Your task to perform on an android device: Check the news Image 0: 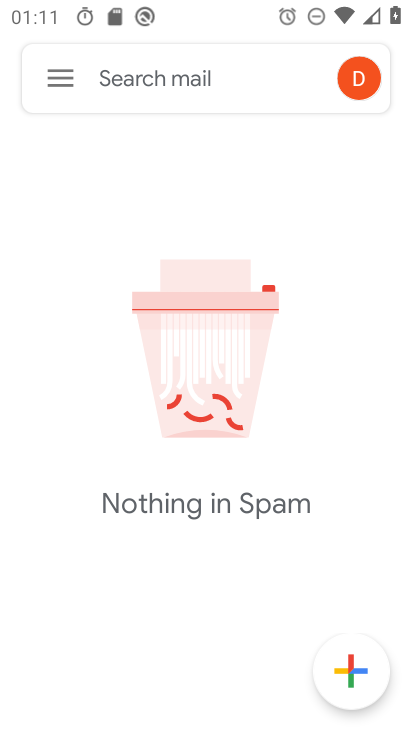
Step 0: press home button
Your task to perform on an android device: Check the news Image 1: 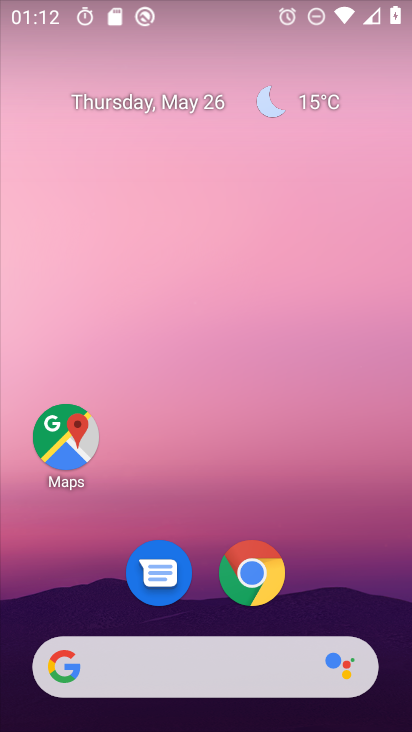
Step 1: click (120, 659)
Your task to perform on an android device: Check the news Image 2: 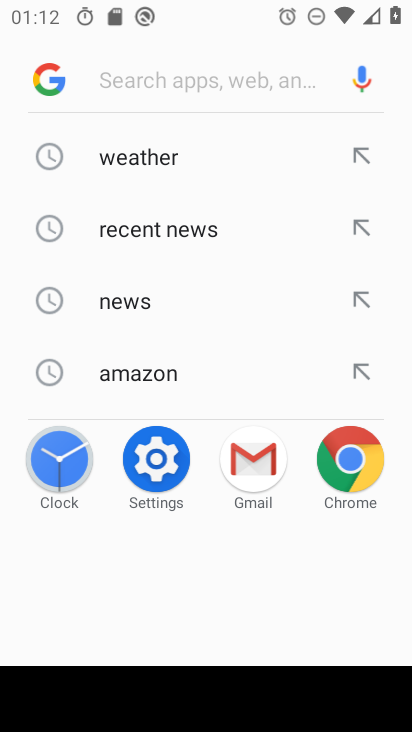
Step 2: click (111, 298)
Your task to perform on an android device: Check the news Image 3: 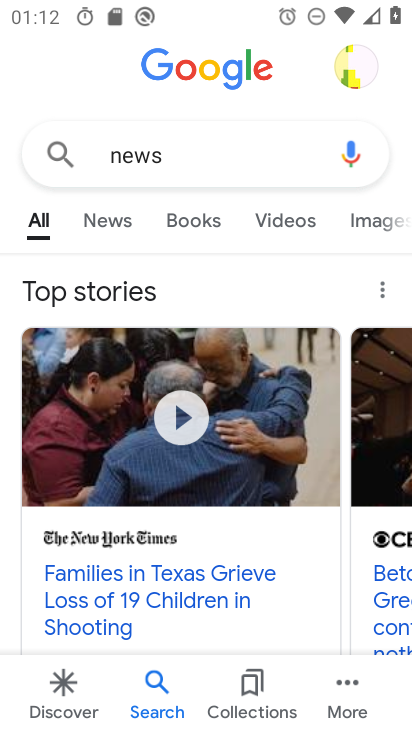
Step 3: drag from (260, 558) to (220, 290)
Your task to perform on an android device: Check the news Image 4: 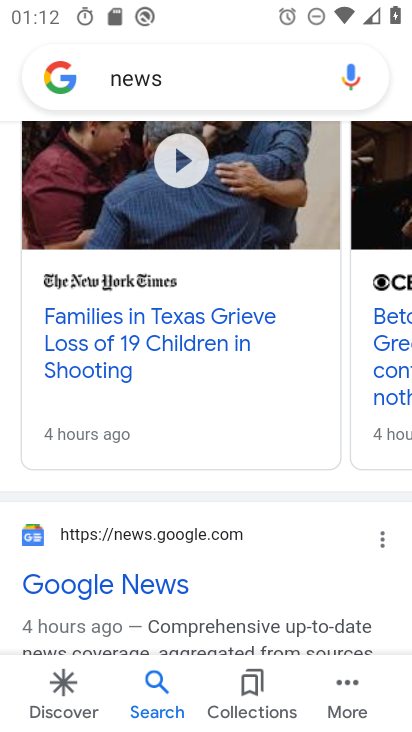
Step 4: drag from (220, 290) to (217, 595)
Your task to perform on an android device: Check the news Image 5: 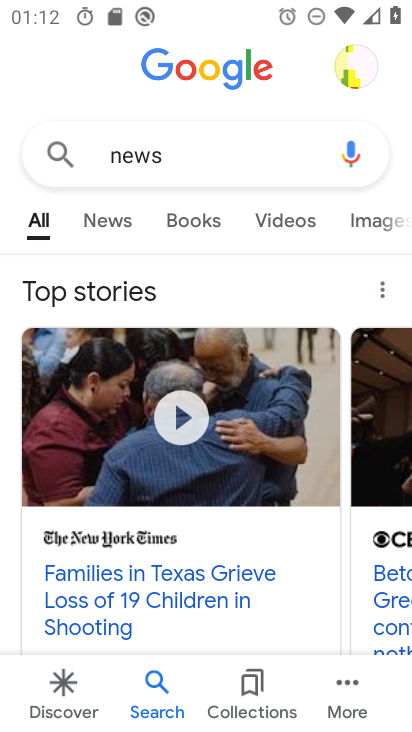
Step 5: click (111, 224)
Your task to perform on an android device: Check the news Image 6: 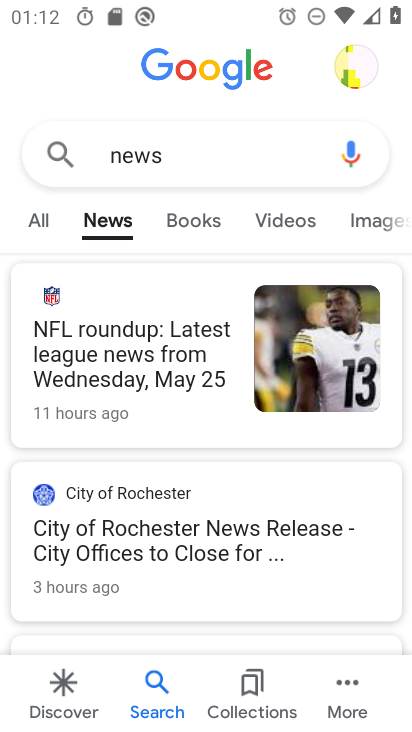
Step 6: task complete